Your task to perform on an android device: move a message to another label in the gmail app Image 0: 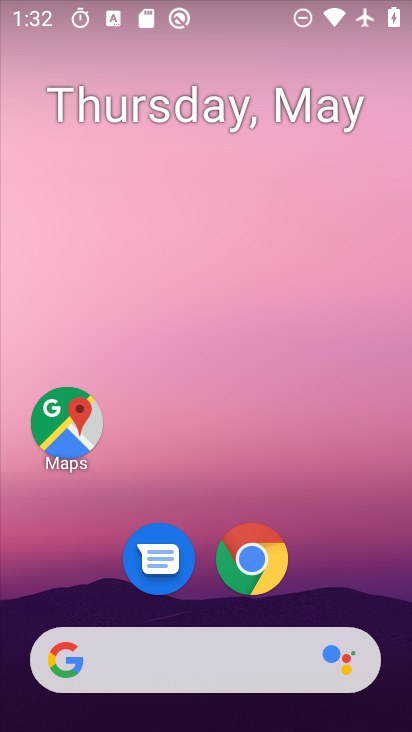
Step 0: drag from (295, 671) to (340, 181)
Your task to perform on an android device: move a message to another label in the gmail app Image 1: 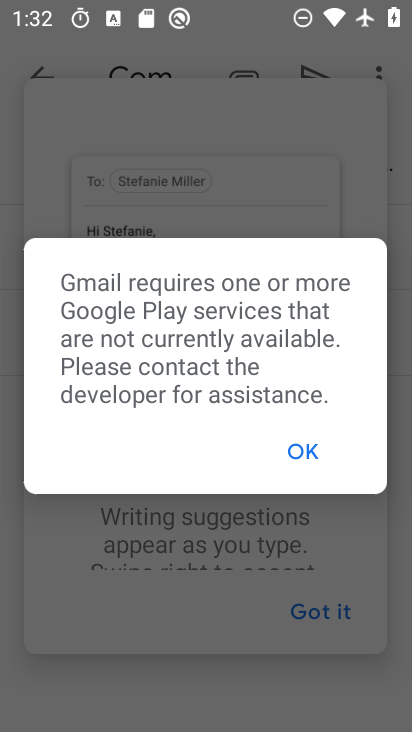
Step 1: press home button
Your task to perform on an android device: move a message to another label in the gmail app Image 2: 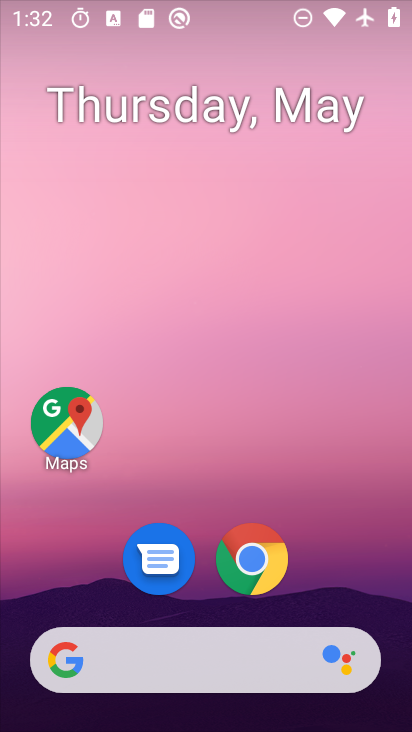
Step 2: drag from (194, 629) to (216, 264)
Your task to perform on an android device: move a message to another label in the gmail app Image 3: 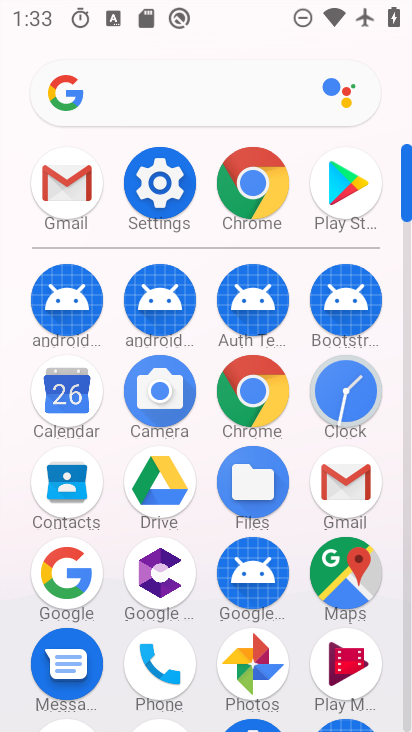
Step 3: click (347, 497)
Your task to perform on an android device: move a message to another label in the gmail app Image 4: 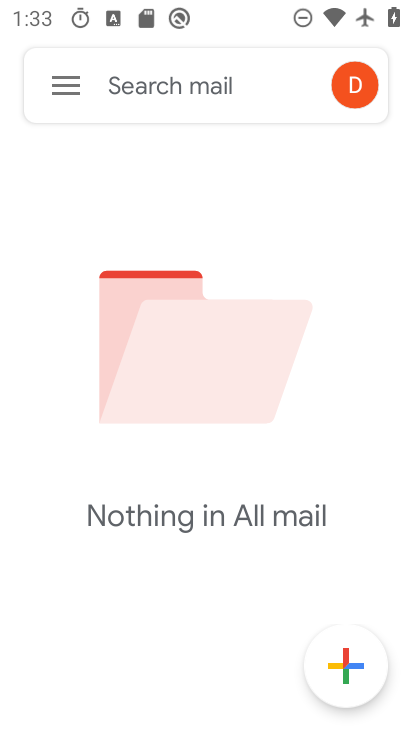
Step 4: task complete